Your task to perform on an android device: Open the Play Movies app and select the watchlist tab. Image 0: 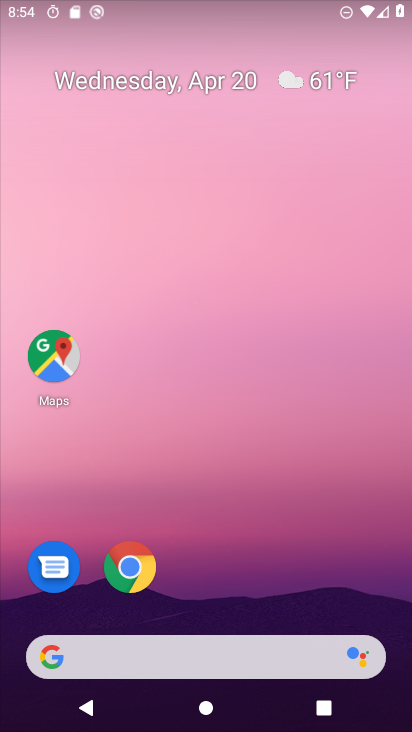
Step 0: drag from (384, 610) to (399, 0)
Your task to perform on an android device: Open the Play Movies app and select the watchlist tab. Image 1: 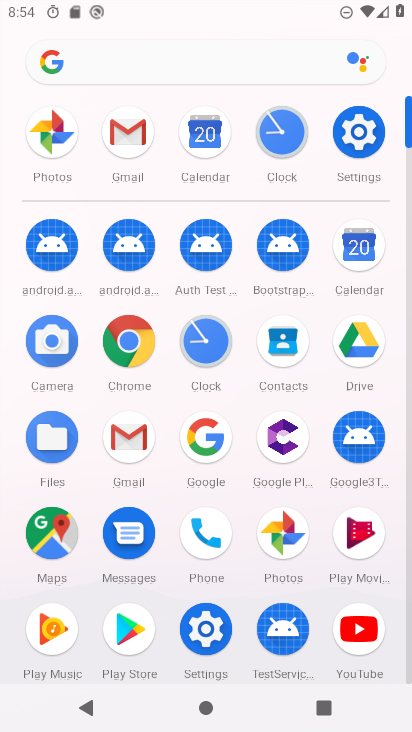
Step 1: click (353, 526)
Your task to perform on an android device: Open the Play Movies app and select the watchlist tab. Image 2: 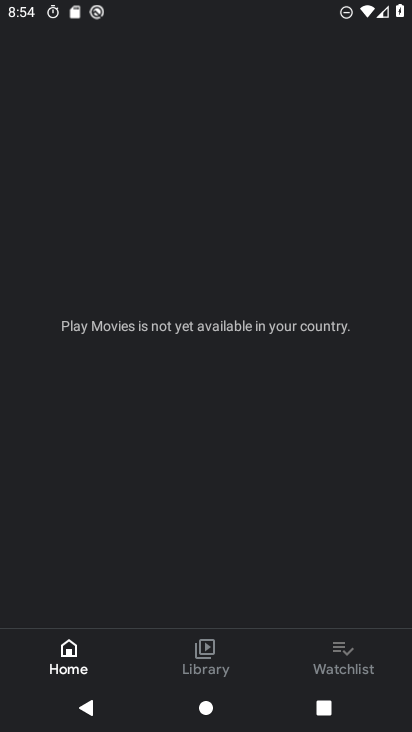
Step 2: click (341, 660)
Your task to perform on an android device: Open the Play Movies app and select the watchlist tab. Image 3: 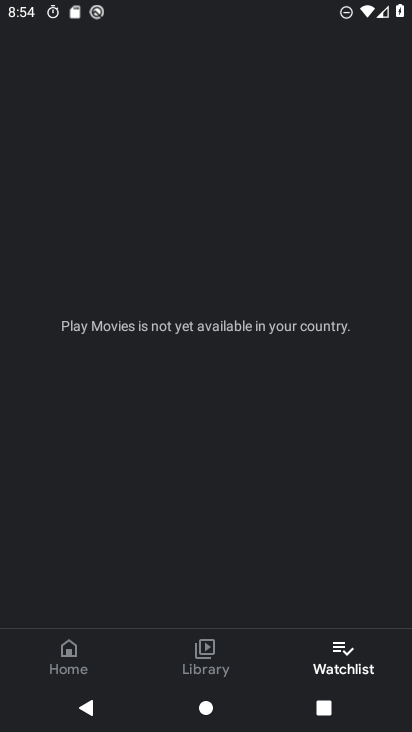
Step 3: task complete